Your task to perform on an android device: Go to Reddit.com Image 0: 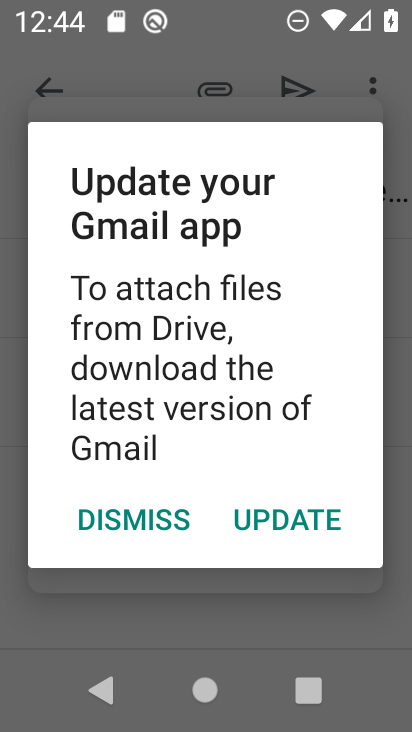
Step 0: press home button
Your task to perform on an android device: Go to Reddit.com Image 1: 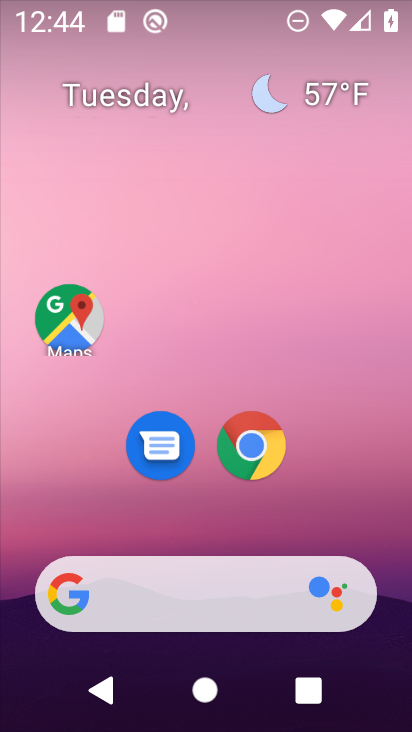
Step 1: drag from (387, 546) to (361, 218)
Your task to perform on an android device: Go to Reddit.com Image 2: 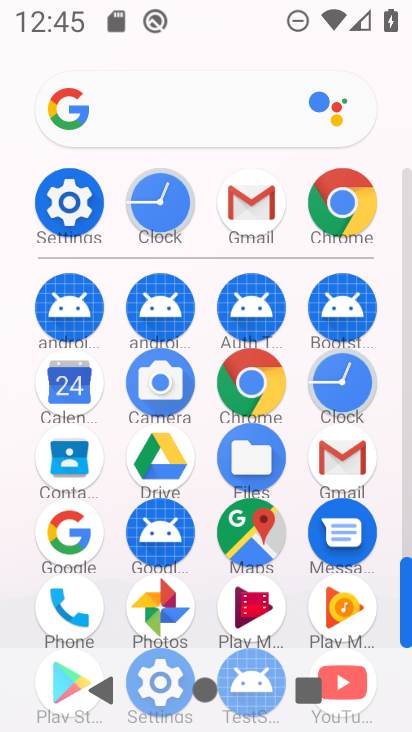
Step 2: click (269, 390)
Your task to perform on an android device: Go to Reddit.com Image 3: 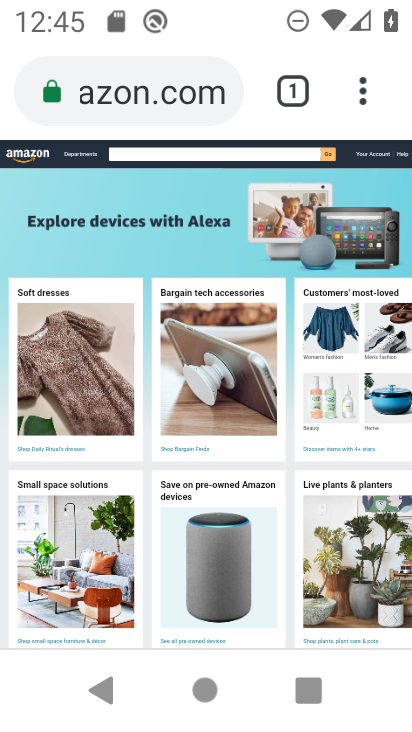
Step 3: press back button
Your task to perform on an android device: Go to Reddit.com Image 4: 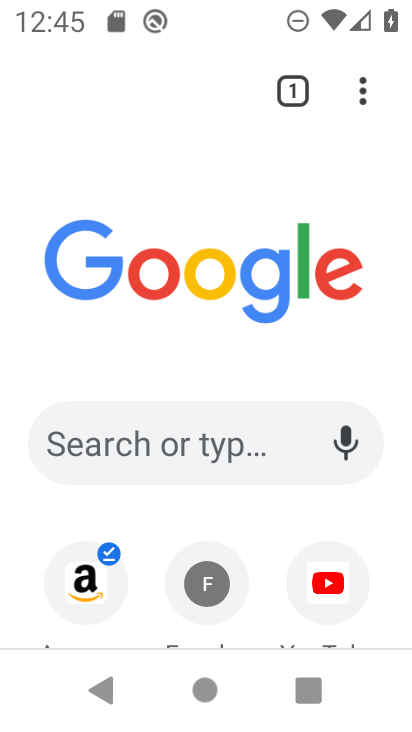
Step 4: click (245, 458)
Your task to perform on an android device: Go to Reddit.com Image 5: 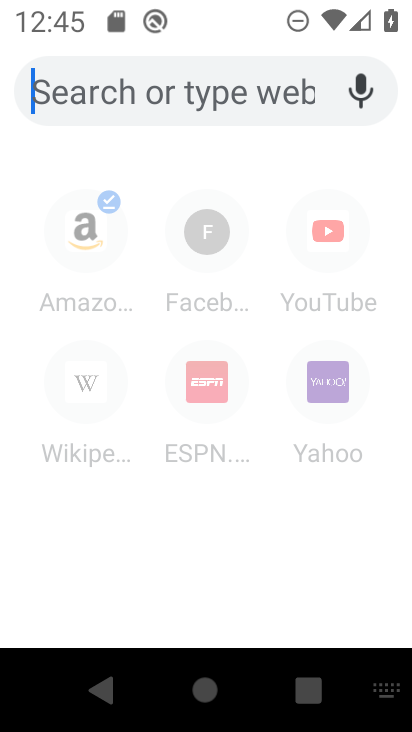
Step 5: type "reddit .com"
Your task to perform on an android device: Go to Reddit.com Image 6: 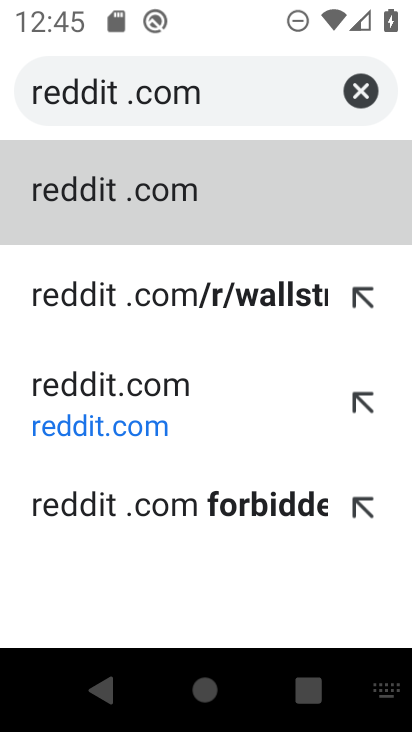
Step 6: click (183, 200)
Your task to perform on an android device: Go to Reddit.com Image 7: 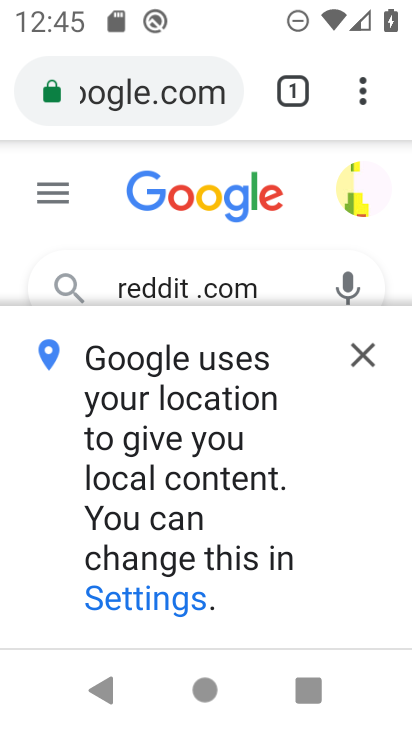
Step 7: task complete